Your task to perform on an android device: find which apps use the phone's location Image 0: 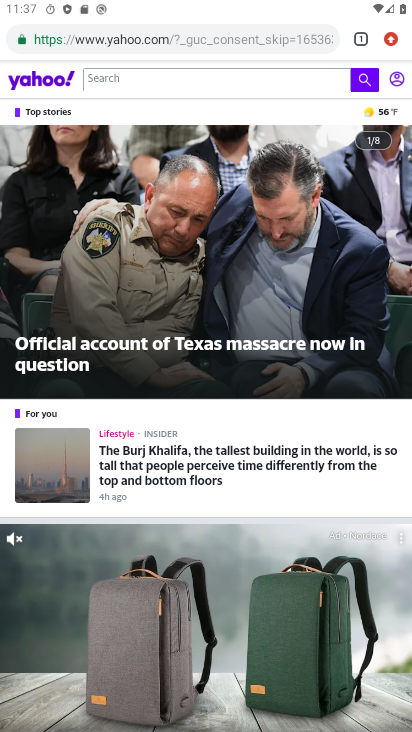
Step 0: press home button
Your task to perform on an android device: find which apps use the phone's location Image 1: 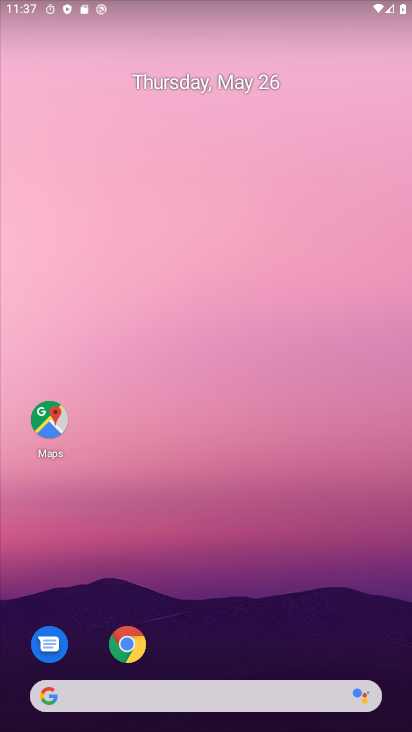
Step 1: drag from (270, 566) to (164, 9)
Your task to perform on an android device: find which apps use the phone's location Image 2: 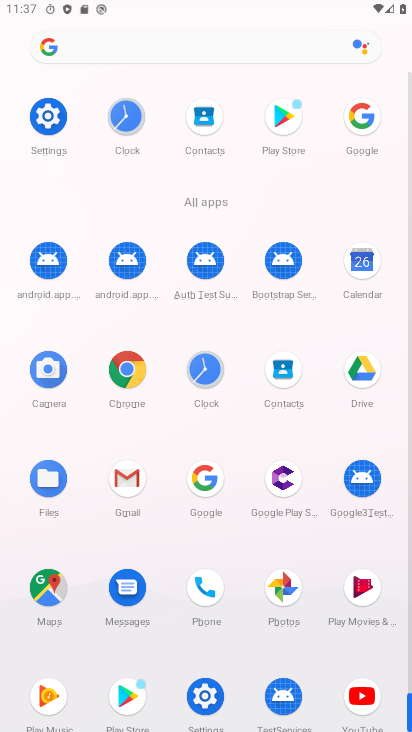
Step 2: click (217, 691)
Your task to perform on an android device: find which apps use the phone's location Image 3: 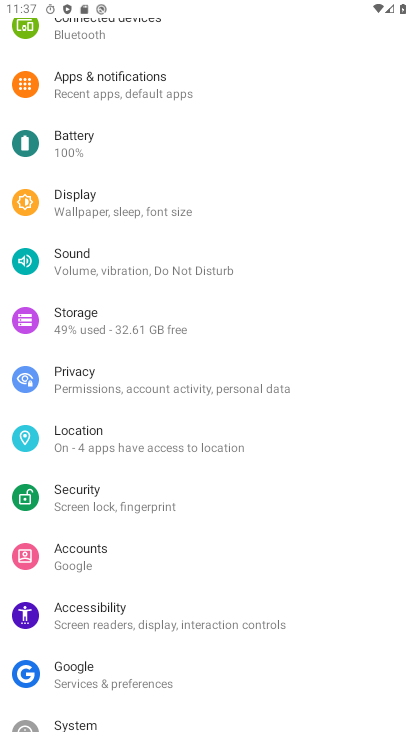
Step 3: click (144, 426)
Your task to perform on an android device: find which apps use the phone's location Image 4: 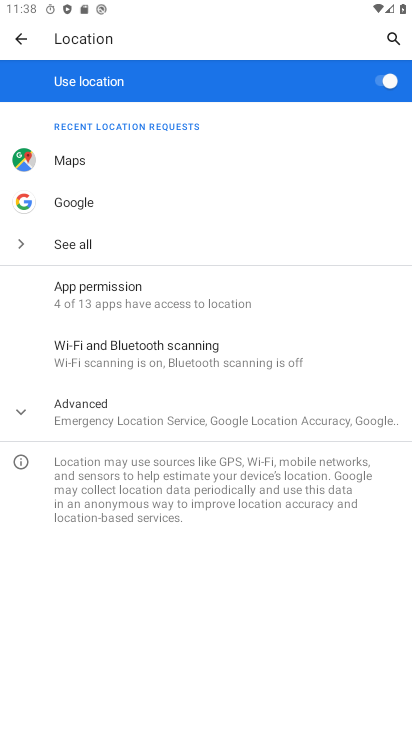
Step 4: click (226, 303)
Your task to perform on an android device: find which apps use the phone's location Image 5: 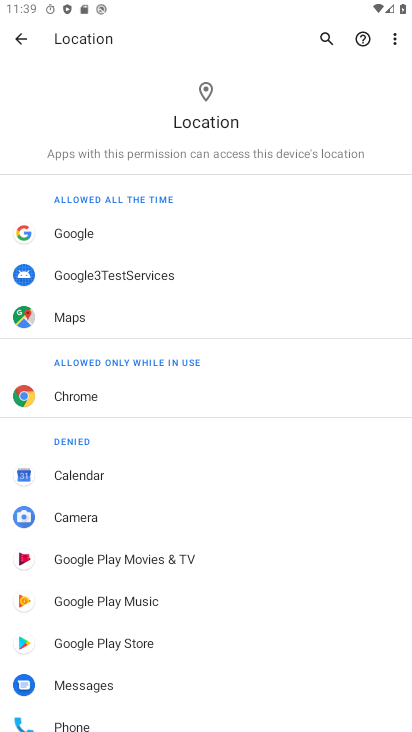
Step 5: task complete